Your task to perform on an android device: Go to notification settings Image 0: 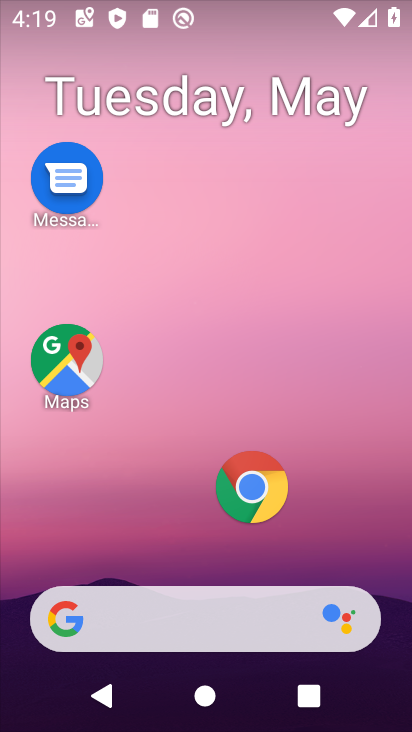
Step 0: drag from (309, 564) to (239, 44)
Your task to perform on an android device: Go to notification settings Image 1: 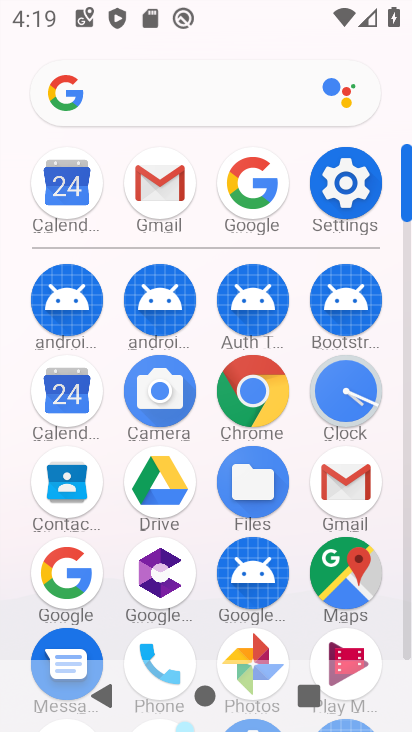
Step 1: click (347, 173)
Your task to perform on an android device: Go to notification settings Image 2: 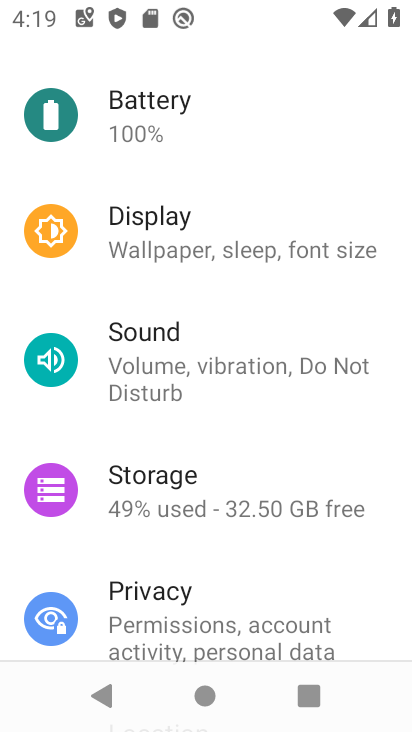
Step 2: drag from (177, 160) to (225, 27)
Your task to perform on an android device: Go to notification settings Image 3: 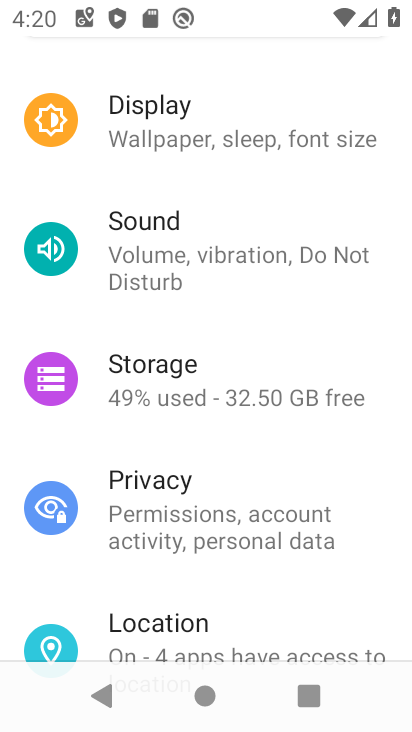
Step 3: drag from (210, 582) to (174, 244)
Your task to perform on an android device: Go to notification settings Image 4: 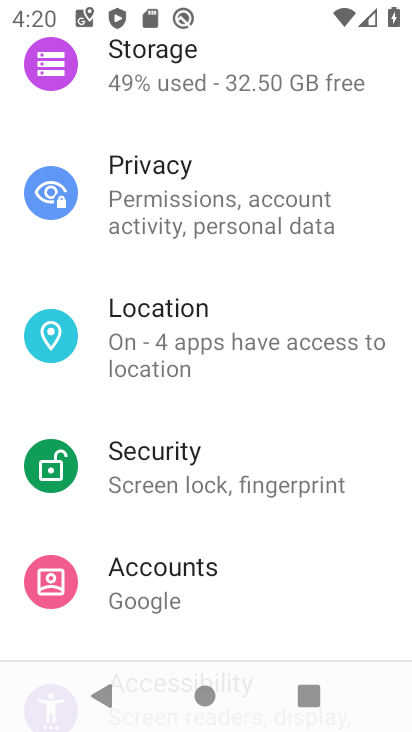
Step 4: drag from (225, 243) to (411, 677)
Your task to perform on an android device: Go to notification settings Image 5: 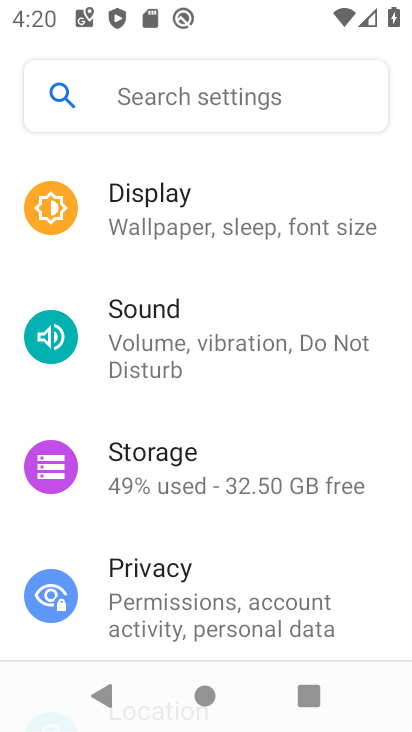
Step 5: drag from (241, 354) to (3, 148)
Your task to perform on an android device: Go to notification settings Image 6: 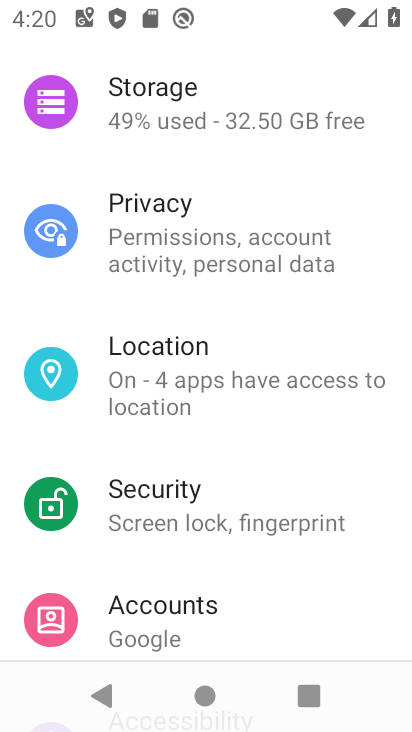
Step 6: drag from (147, 277) to (129, 729)
Your task to perform on an android device: Go to notification settings Image 7: 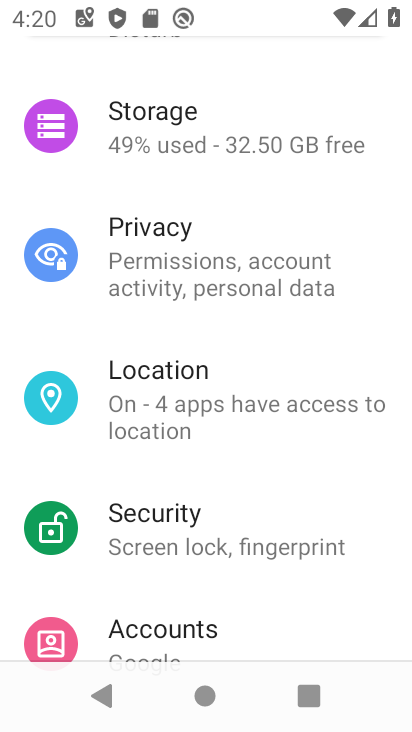
Step 7: drag from (74, 309) to (153, 655)
Your task to perform on an android device: Go to notification settings Image 8: 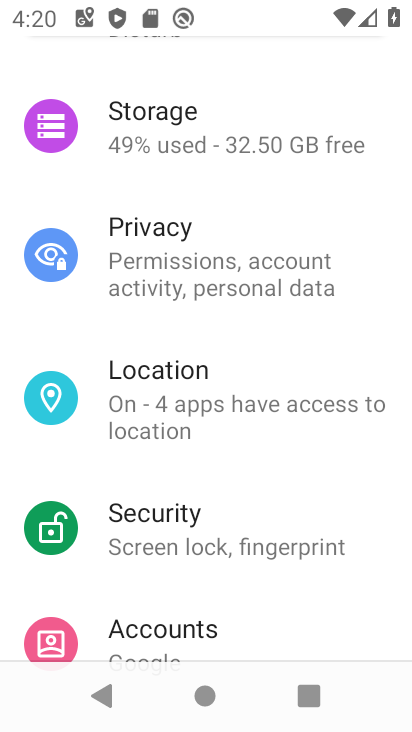
Step 8: drag from (157, 193) to (248, 679)
Your task to perform on an android device: Go to notification settings Image 9: 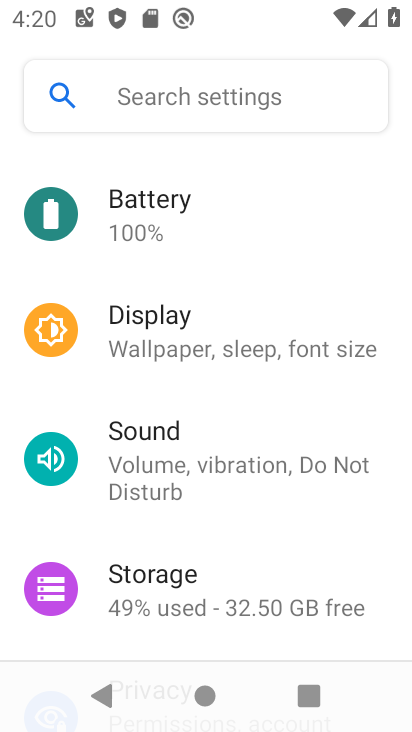
Step 9: drag from (165, 275) to (161, 724)
Your task to perform on an android device: Go to notification settings Image 10: 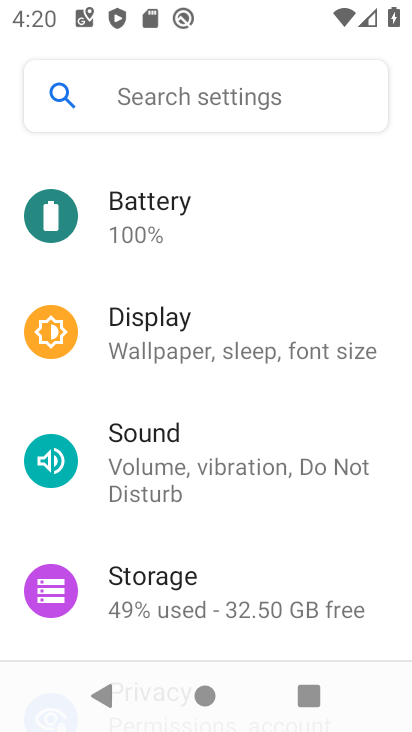
Step 10: drag from (229, 251) to (285, 678)
Your task to perform on an android device: Go to notification settings Image 11: 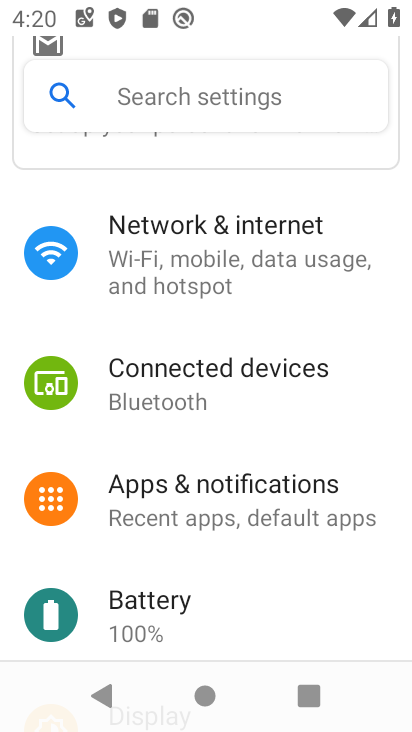
Step 11: click (238, 508)
Your task to perform on an android device: Go to notification settings Image 12: 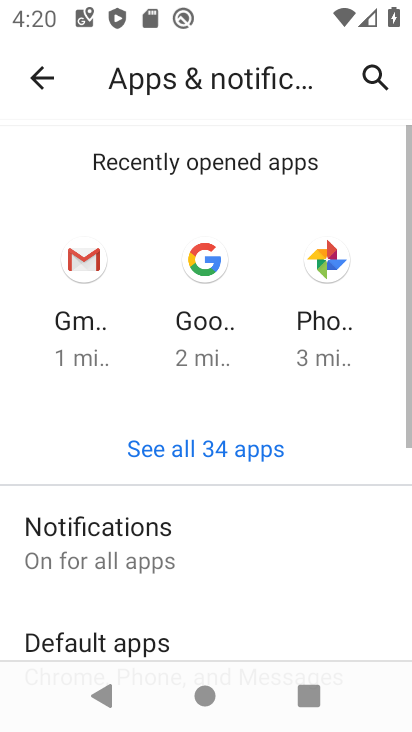
Step 12: click (133, 550)
Your task to perform on an android device: Go to notification settings Image 13: 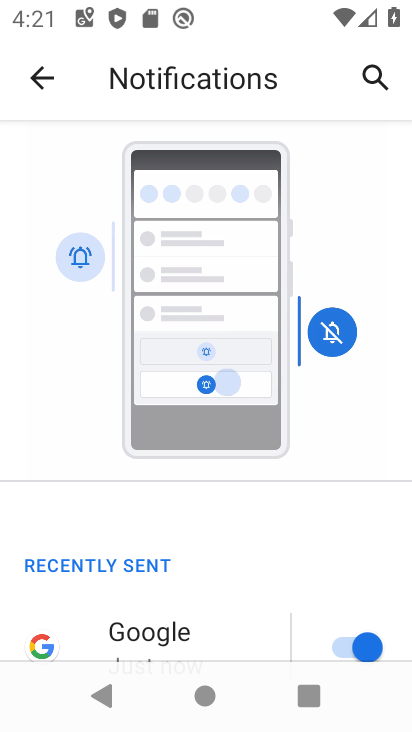
Step 13: task complete